Your task to perform on an android device: Go to accessibility settings Image 0: 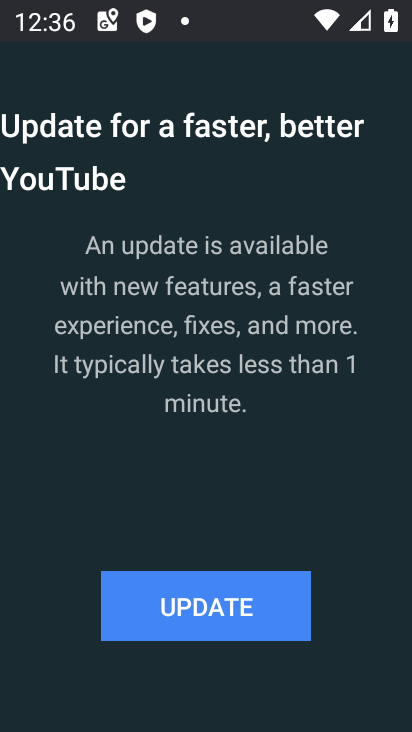
Step 0: press home button
Your task to perform on an android device: Go to accessibility settings Image 1: 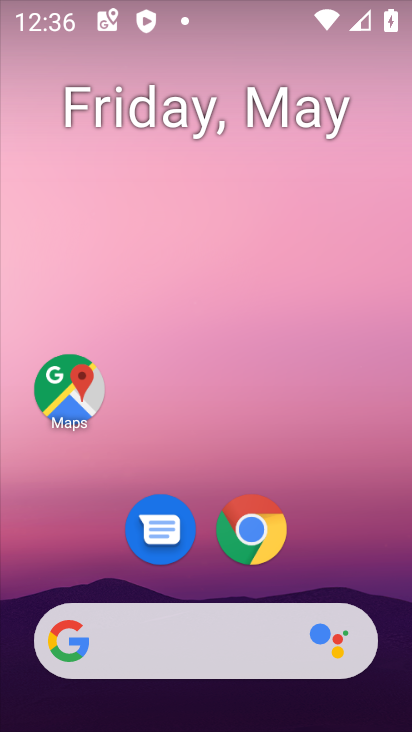
Step 1: drag from (326, 554) to (289, 48)
Your task to perform on an android device: Go to accessibility settings Image 2: 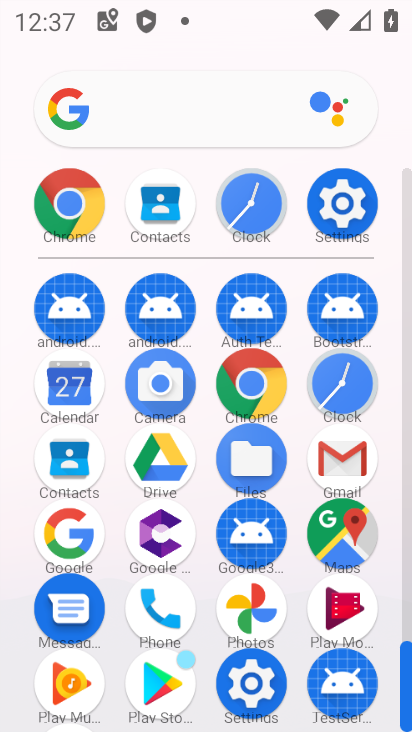
Step 2: click (354, 257)
Your task to perform on an android device: Go to accessibility settings Image 3: 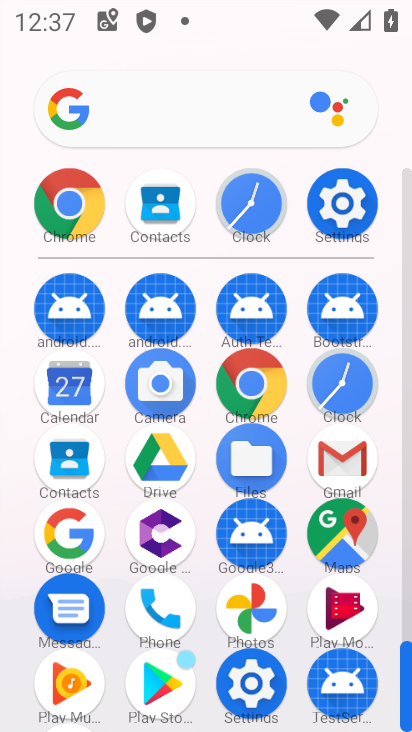
Step 3: click (357, 210)
Your task to perform on an android device: Go to accessibility settings Image 4: 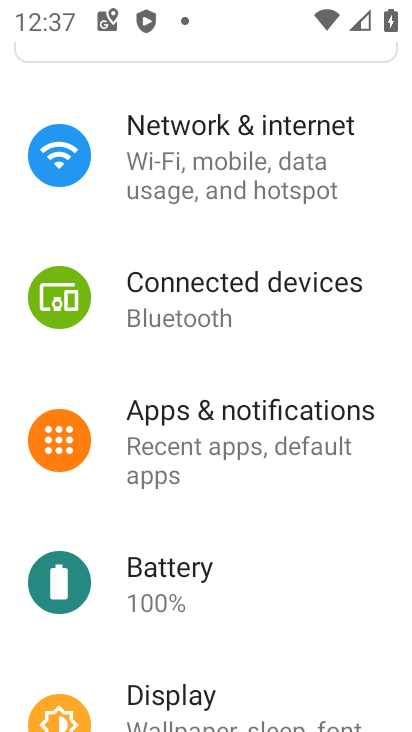
Step 4: drag from (234, 617) to (223, 276)
Your task to perform on an android device: Go to accessibility settings Image 5: 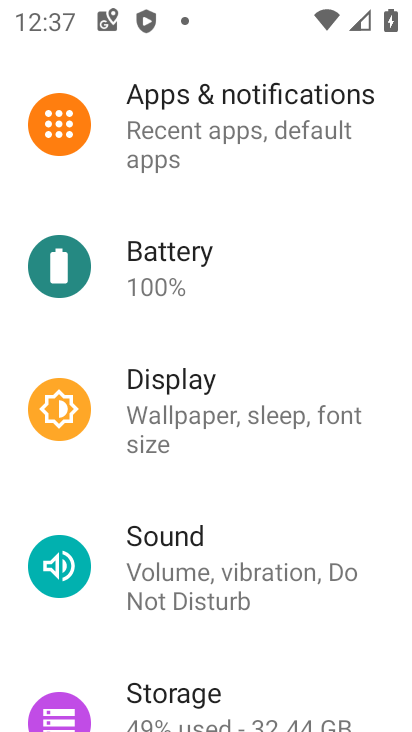
Step 5: drag from (226, 629) to (230, 184)
Your task to perform on an android device: Go to accessibility settings Image 6: 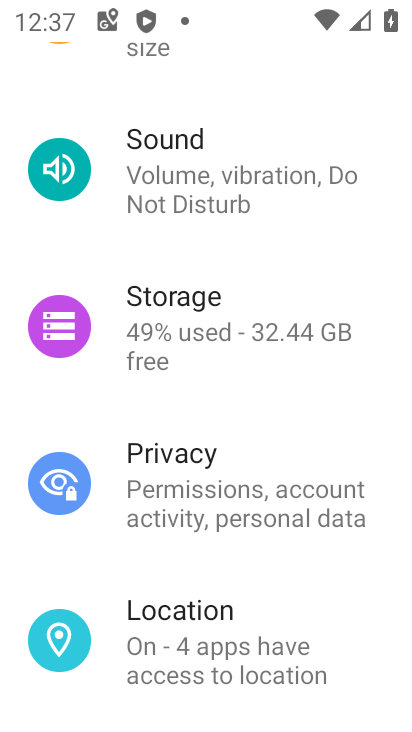
Step 6: drag from (216, 639) to (218, 226)
Your task to perform on an android device: Go to accessibility settings Image 7: 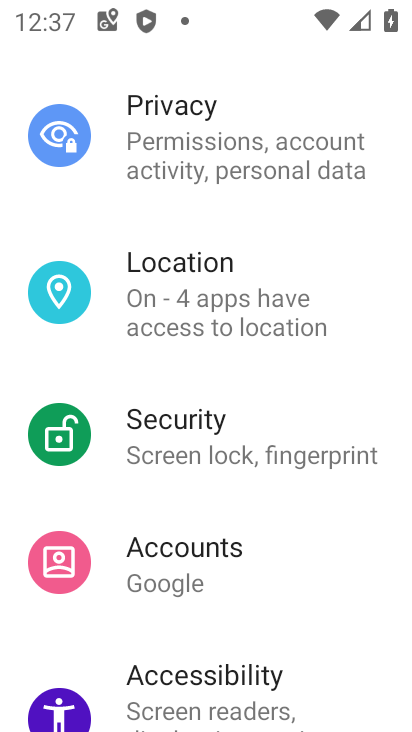
Step 7: drag from (227, 513) to (269, 0)
Your task to perform on an android device: Go to accessibility settings Image 8: 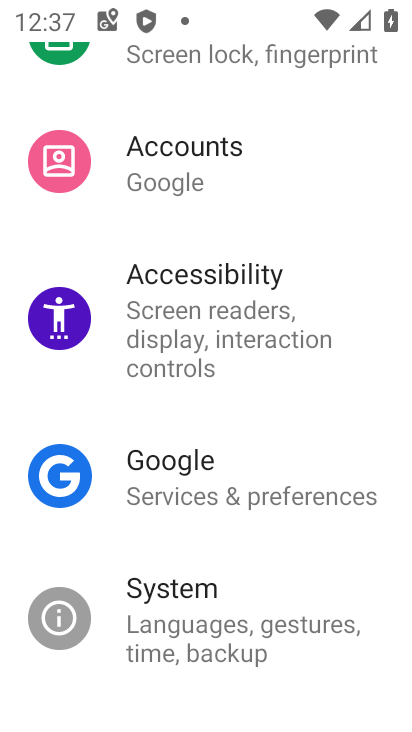
Step 8: click (236, 286)
Your task to perform on an android device: Go to accessibility settings Image 9: 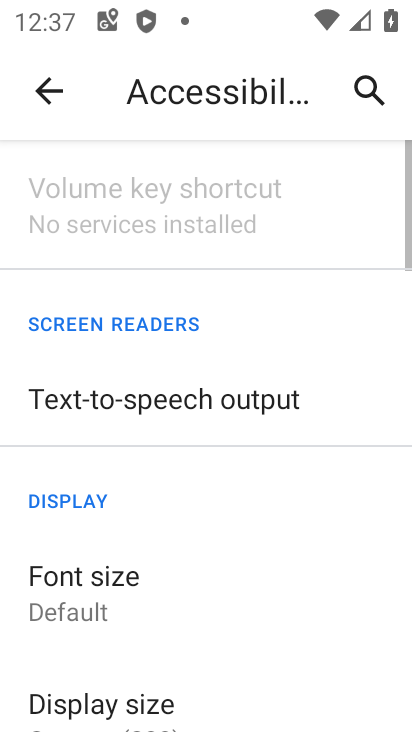
Step 9: task complete